Your task to perform on an android device: turn on sleep mode Image 0: 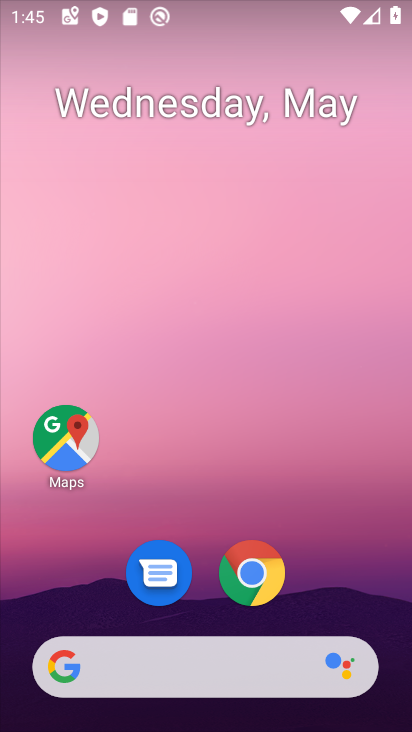
Step 0: drag from (351, 583) to (341, 44)
Your task to perform on an android device: turn on sleep mode Image 1: 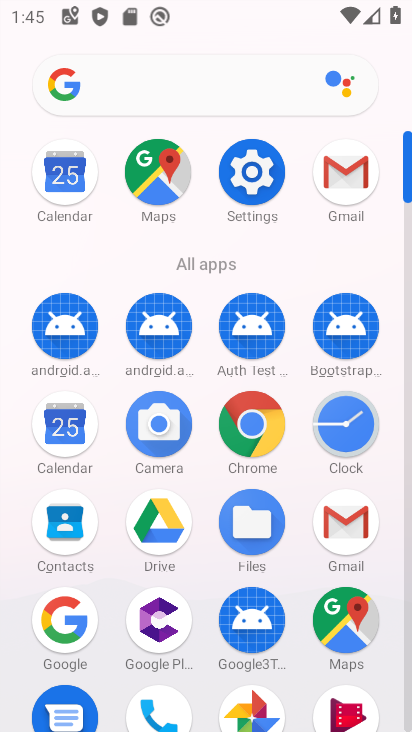
Step 1: click (262, 178)
Your task to perform on an android device: turn on sleep mode Image 2: 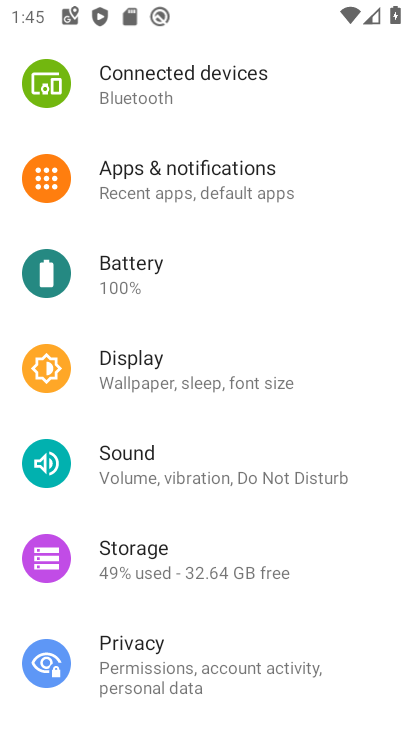
Step 2: click (205, 387)
Your task to perform on an android device: turn on sleep mode Image 3: 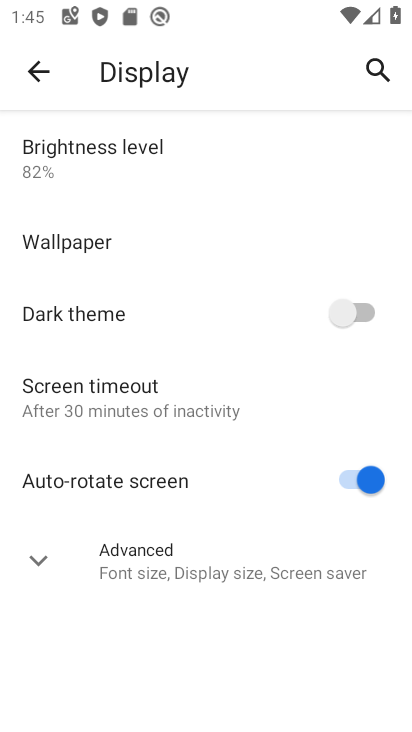
Step 3: click (216, 578)
Your task to perform on an android device: turn on sleep mode Image 4: 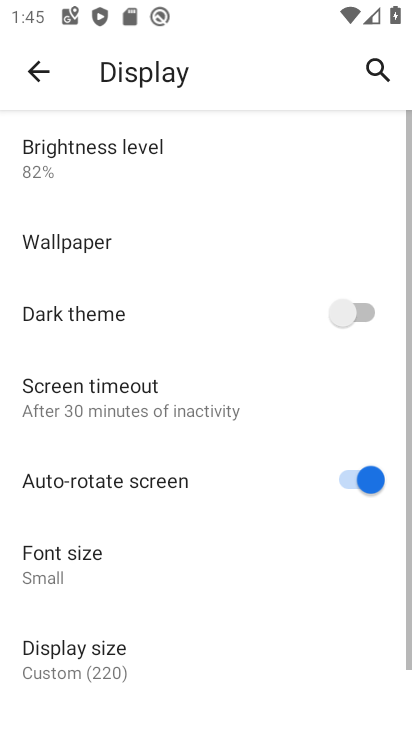
Step 4: task complete